Your task to perform on an android device: turn off priority inbox in the gmail app Image 0: 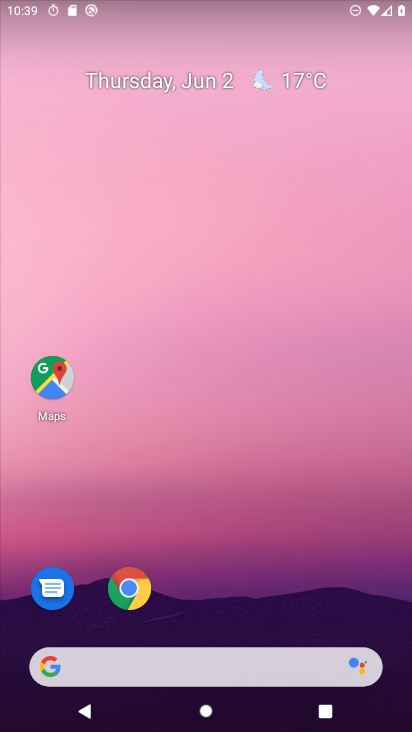
Step 0: drag from (225, 597) to (267, 307)
Your task to perform on an android device: turn off priority inbox in the gmail app Image 1: 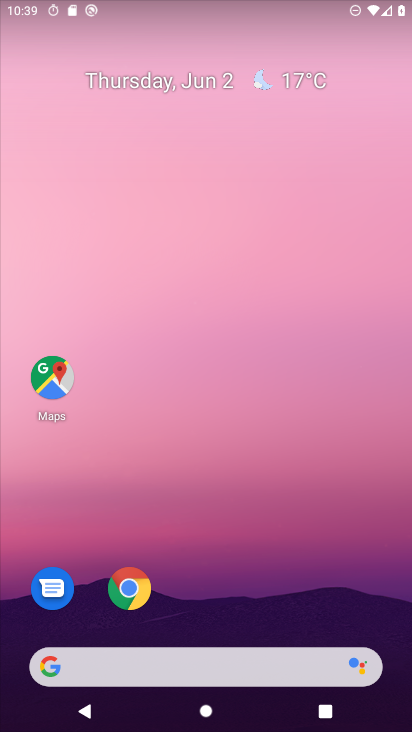
Step 1: drag from (154, 632) to (187, 344)
Your task to perform on an android device: turn off priority inbox in the gmail app Image 2: 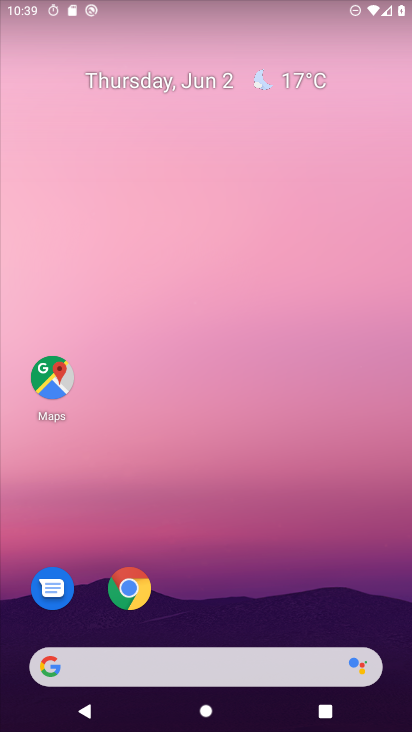
Step 2: drag from (250, 620) to (387, 4)
Your task to perform on an android device: turn off priority inbox in the gmail app Image 3: 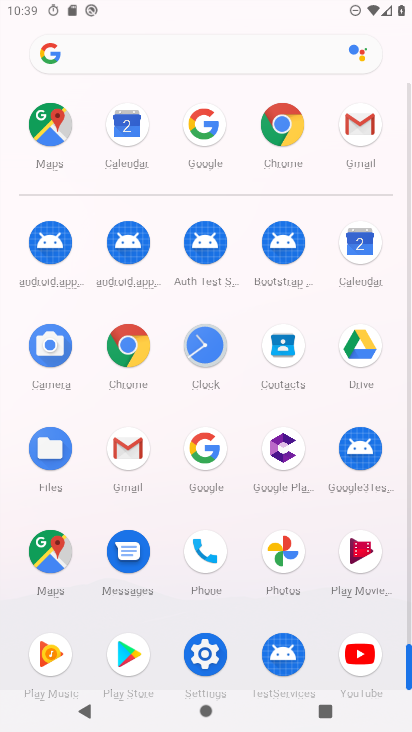
Step 3: click (369, 147)
Your task to perform on an android device: turn off priority inbox in the gmail app Image 4: 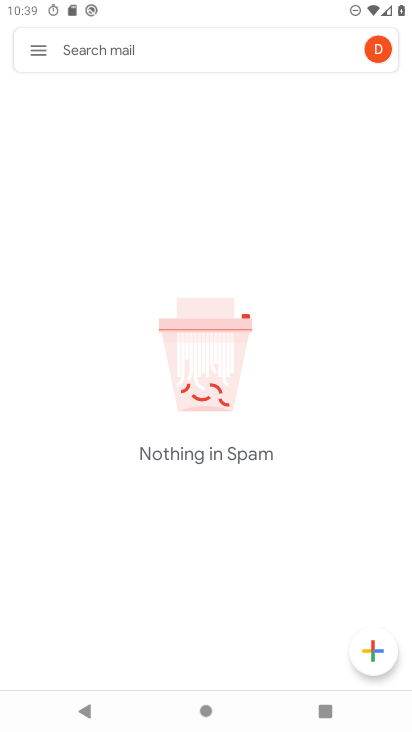
Step 4: click (41, 45)
Your task to perform on an android device: turn off priority inbox in the gmail app Image 5: 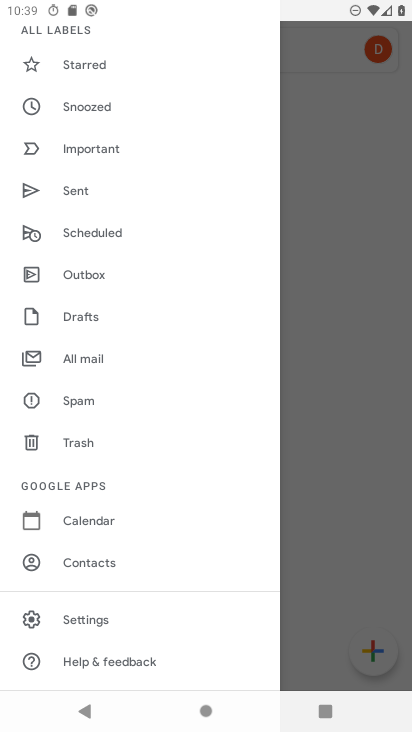
Step 5: click (46, 619)
Your task to perform on an android device: turn off priority inbox in the gmail app Image 6: 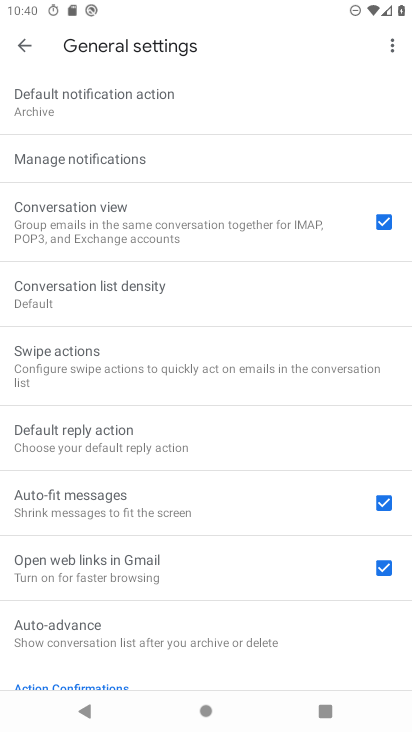
Step 6: click (29, 40)
Your task to perform on an android device: turn off priority inbox in the gmail app Image 7: 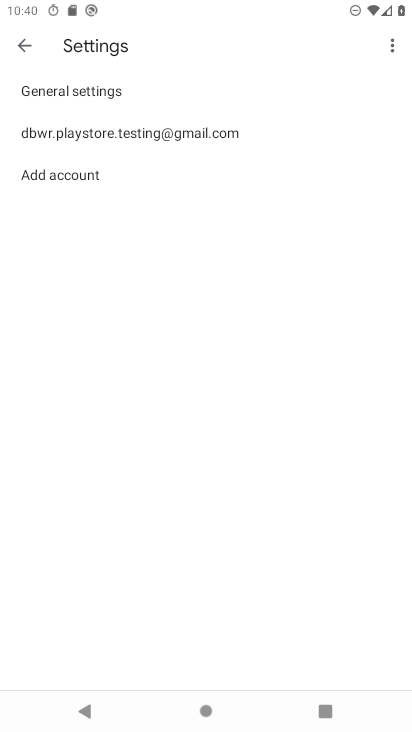
Step 7: click (127, 141)
Your task to perform on an android device: turn off priority inbox in the gmail app Image 8: 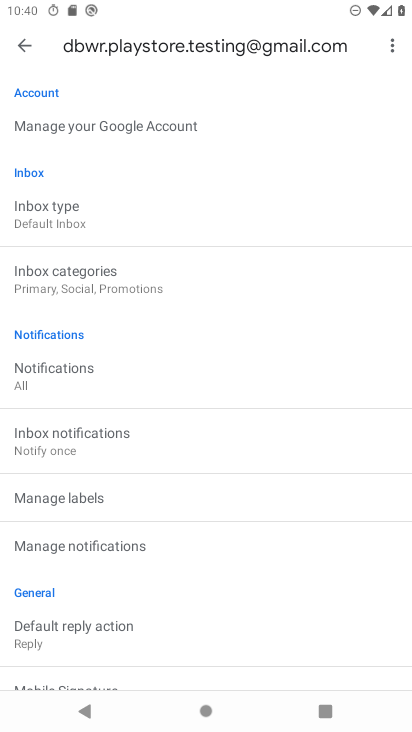
Step 8: click (75, 222)
Your task to perform on an android device: turn off priority inbox in the gmail app Image 9: 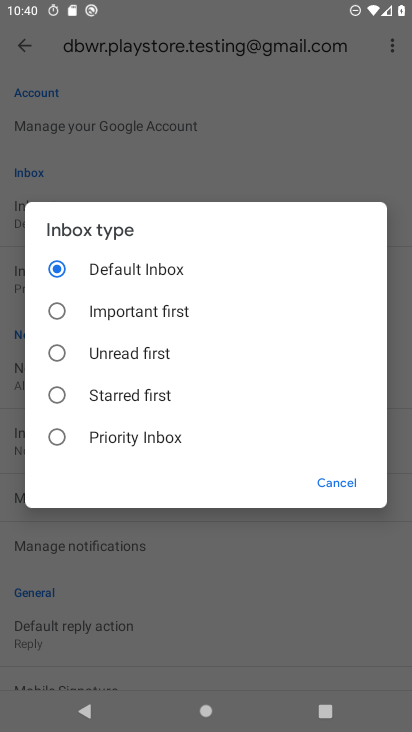
Step 9: task complete